Your task to perform on an android device: set the stopwatch Image 0: 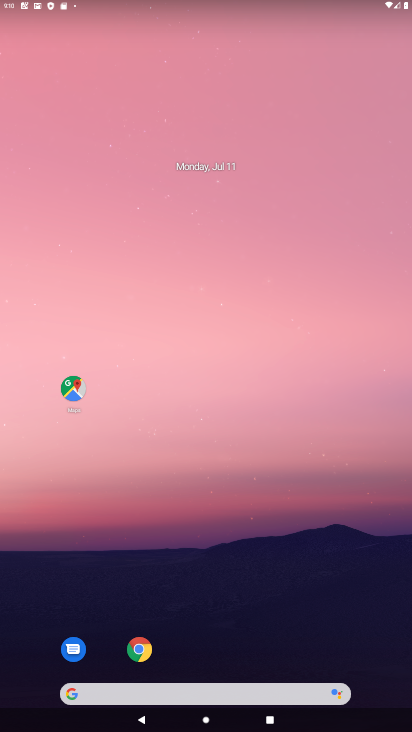
Step 0: drag from (227, 623) to (276, 27)
Your task to perform on an android device: set the stopwatch Image 1: 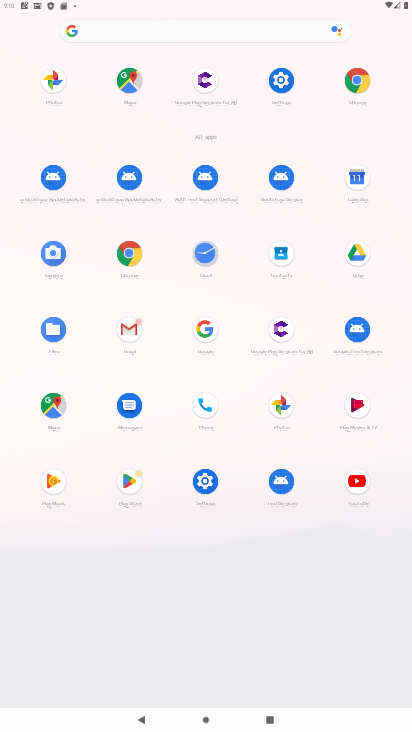
Step 1: click (205, 252)
Your task to perform on an android device: set the stopwatch Image 2: 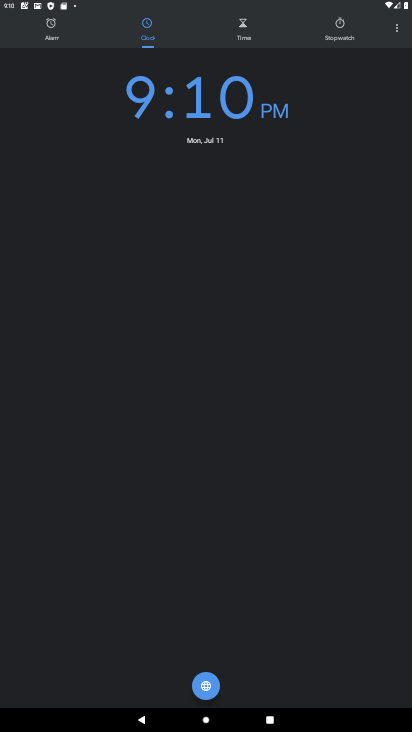
Step 2: click (333, 35)
Your task to perform on an android device: set the stopwatch Image 3: 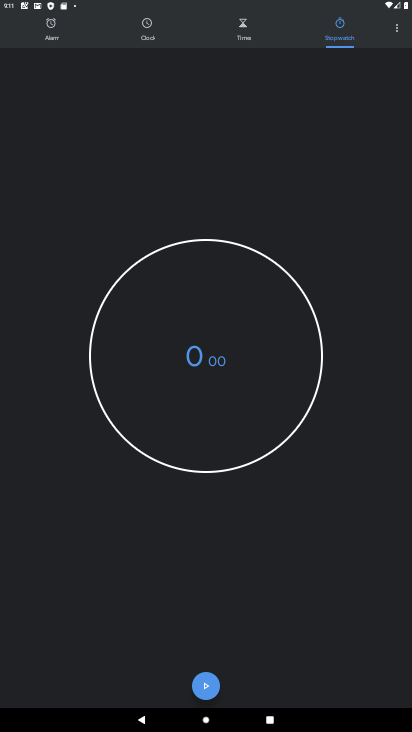
Step 3: click (210, 677)
Your task to perform on an android device: set the stopwatch Image 4: 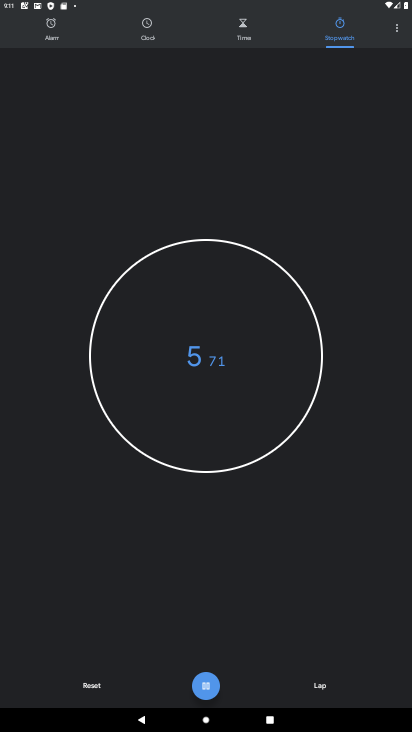
Step 4: task complete